Your task to perform on an android device: Go to Google Image 0: 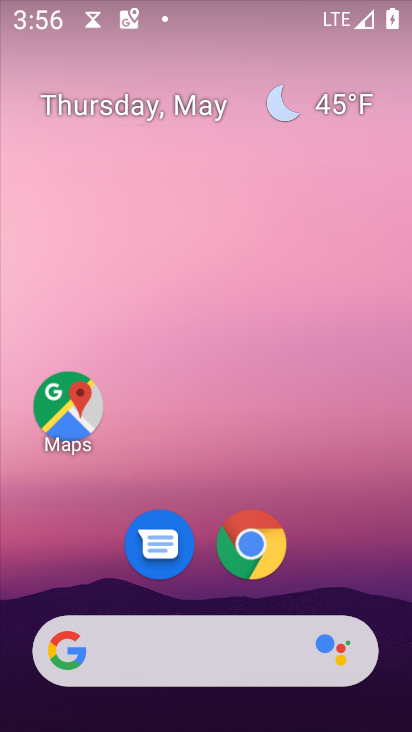
Step 0: drag from (331, 554) to (339, 17)
Your task to perform on an android device: Go to Google Image 1: 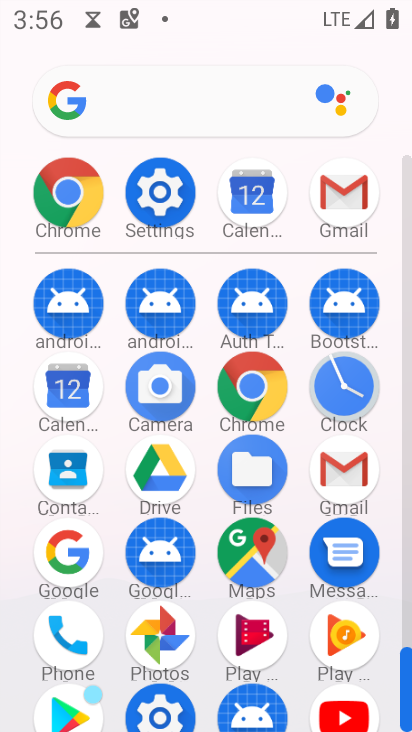
Step 1: click (72, 554)
Your task to perform on an android device: Go to Google Image 2: 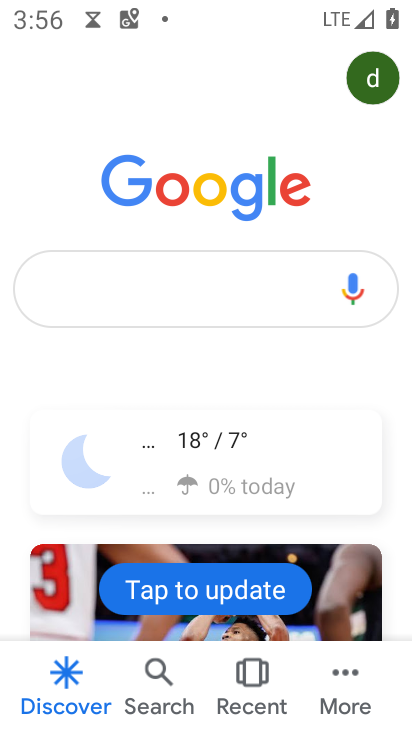
Step 2: task complete